Your task to perform on an android device: toggle notifications settings in the gmail app Image 0: 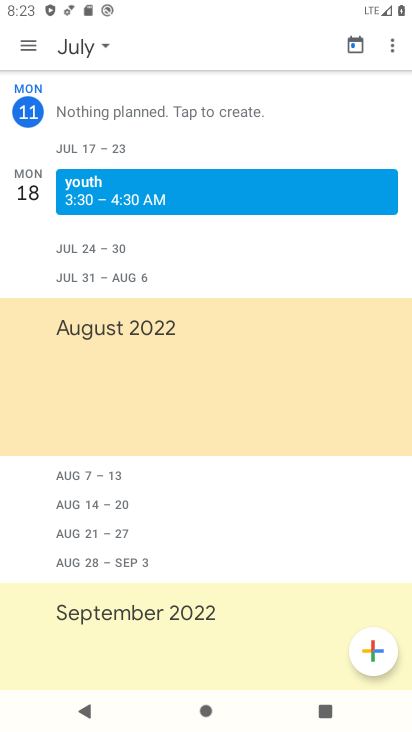
Step 0: press home button
Your task to perform on an android device: toggle notifications settings in the gmail app Image 1: 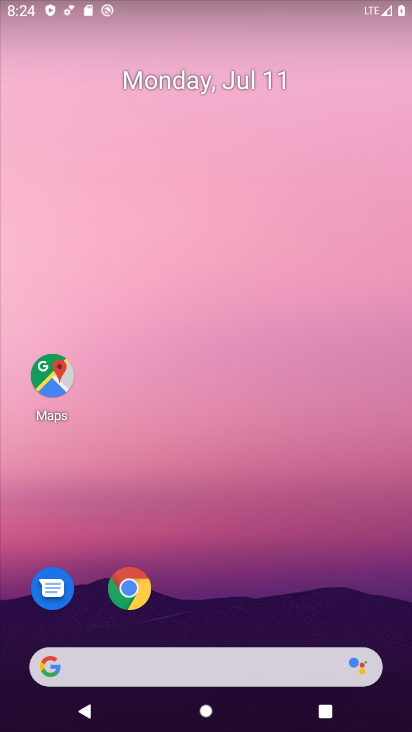
Step 1: drag from (259, 237) to (249, 5)
Your task to perform on an android device: toggle notifications settings in the gmail app Image 2: 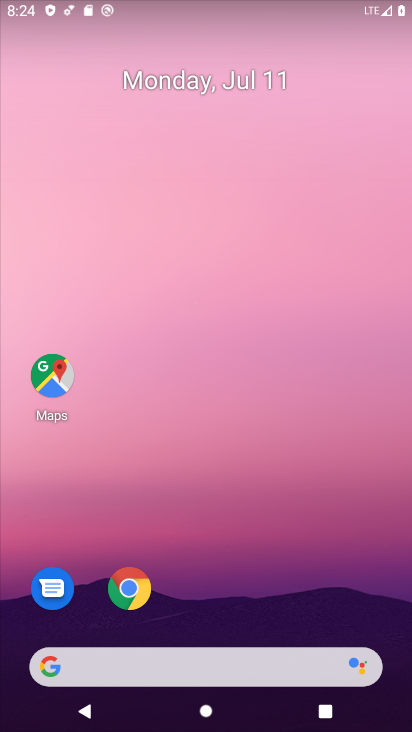
Step 2: drag from (232, 628) to (128, 69)
Your task to perform on an android device: toggle notifications settings in the gmail app Image 3: 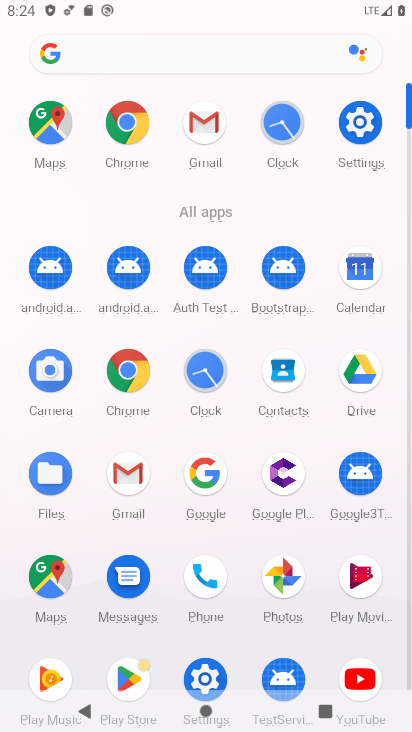
Step 3: click (217, 119)
Your task to perform on an android device: toggle notifications settings in the gmail app Image 4: 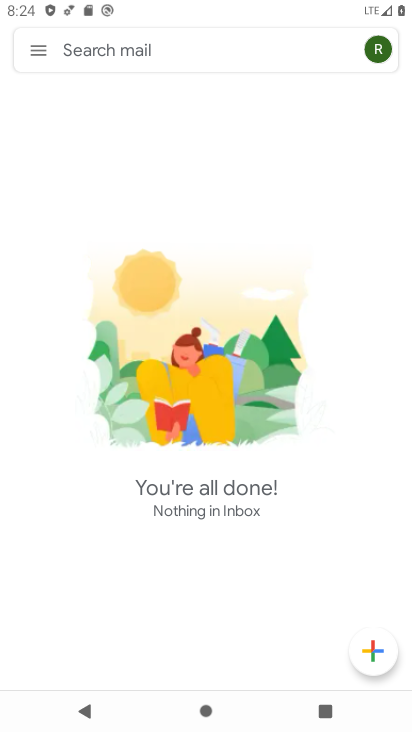
Step 4: click (207, 122)
Your task to perform on an android device: toggle notifications settings in the gmail app Image 5: 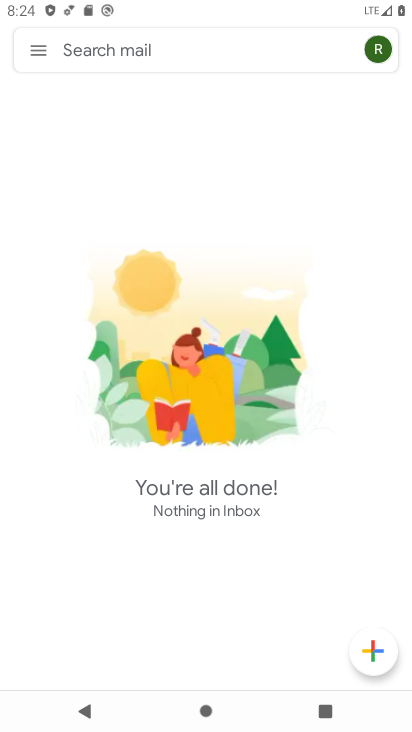
Step 5: click (41, 56)
Your task to perform on an android device: toggle notifications settings in the gmail app Image 6: 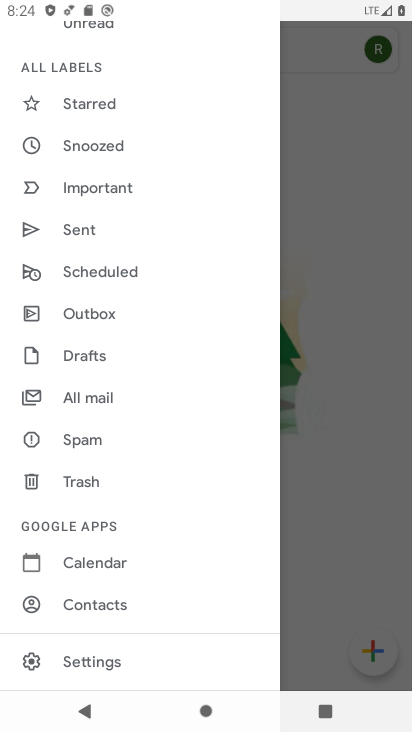
Step 6: click (139, 663)
Your task to perform on an android device: toggle notifications settings in the gmail app Image 7: 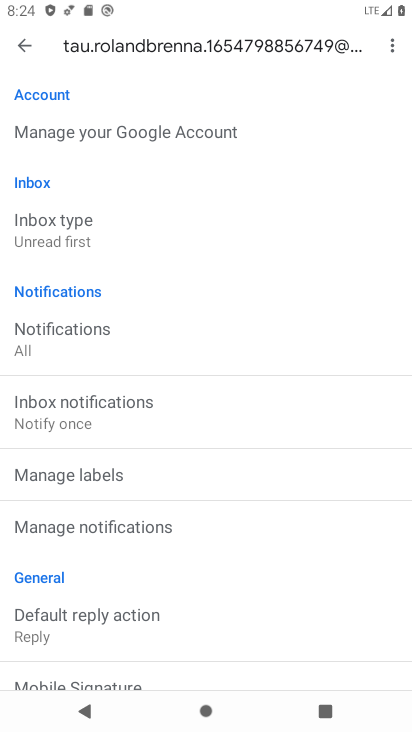
Step 7: click (223, 535)
Your task to perform on an android device: toggle notifications settings in the gmail app Image 8: 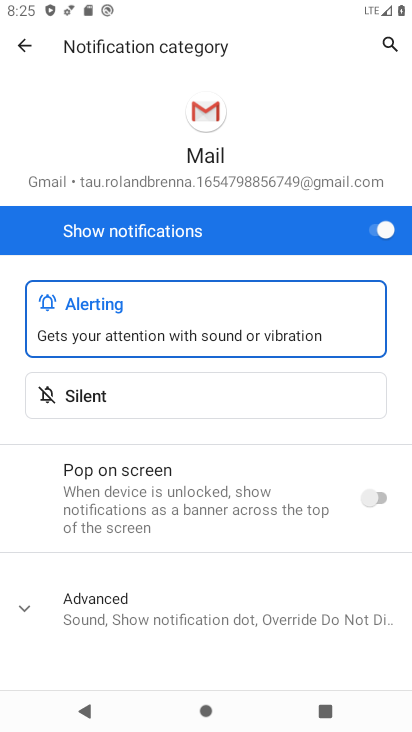
Step 8: click (370, 504)
Your task to perform on an android device: toggle notifications settings in the gmail app Image 9: 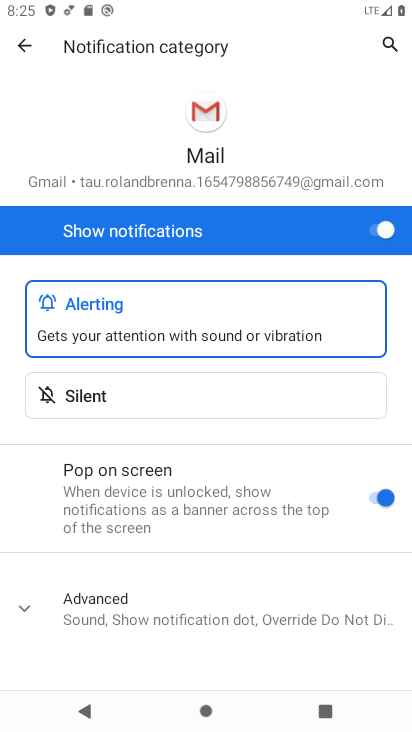
Step 9: click (378, 621)
Your task to perform on an android device: toggle notifications settings in the gmail app Image 10: 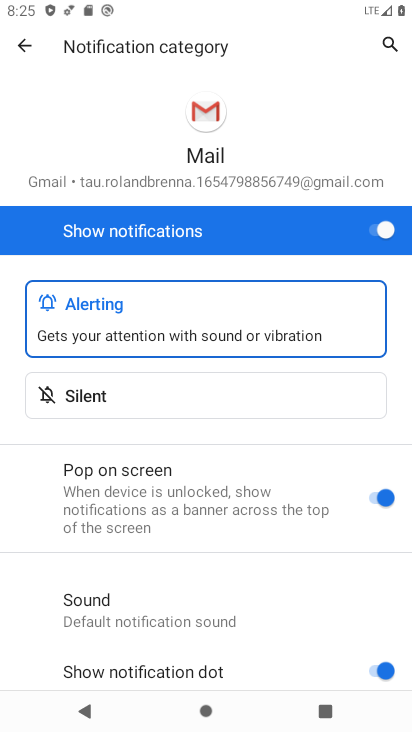
Step 10: drag from (378, 621) to (331, 180)
Your task to perform on an android device: toggle notifications settings in the gmail app Image 11: 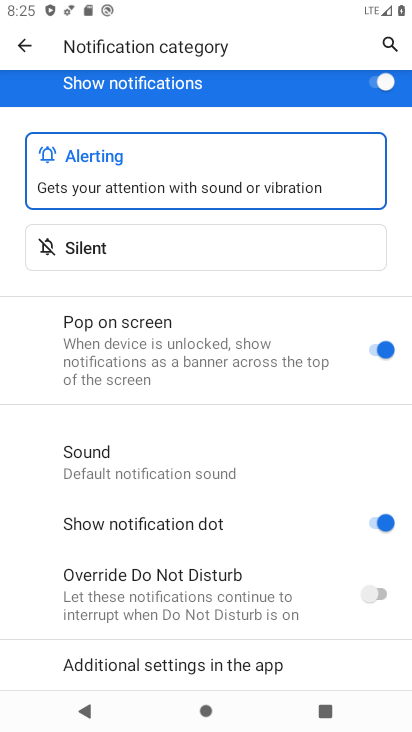
Step 11: click (382, 594)
Your task to perform on an android device: toggle notifications settings in the gmail app Image 12: 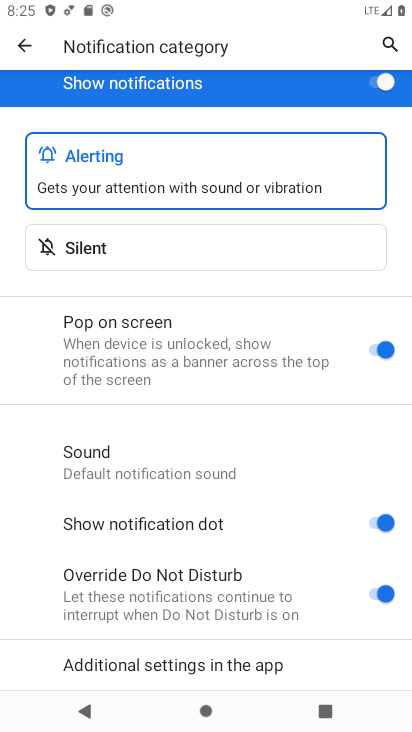
Step 12: task complete